Your task to perform on an android device: open app "DuckDuckGo Privacy Browser" (install if not already installed) and enter user name: "cleaving@outlook.com" and password: "freighters" Image 0: 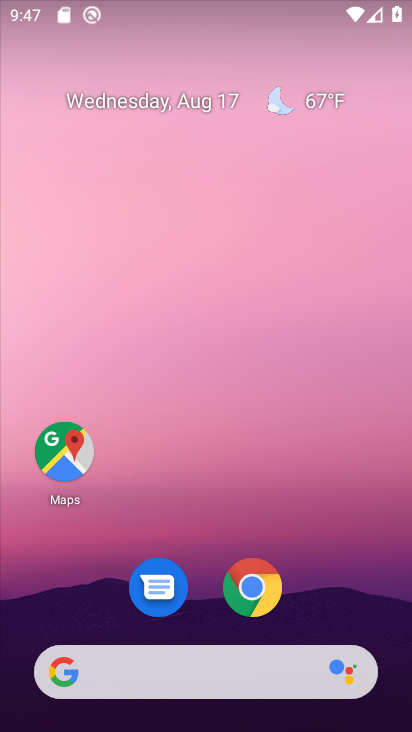
Step 0: drag from (214, 616) to (168, 72)
Your task to perform on an android device: open app "DuckDuckGo Privacy Browser" (install if not already installed) and enter user name: "cleaving@outlook.com" and password: "freighters" Image 1: 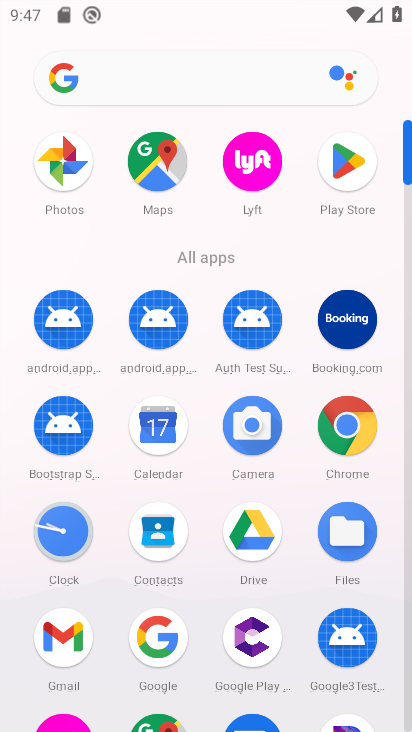
Step 1: click (343, 156)
Your task to perform on an android device: open app "DuckDuckGo Privacy Browser" (install if not already installed) and enter user name: "cleaving@outlook.com" and password: "freighters" Image 2: 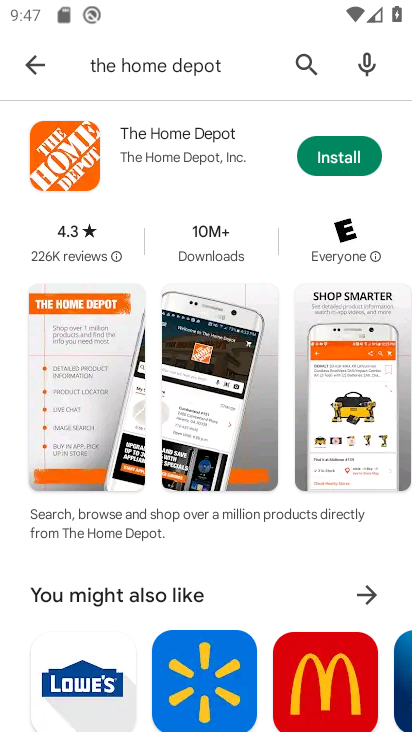
Step 2: click (29, 63)
Your task to perform on an android device: open app "DuckDuckGo Privacy Browser" (install if not already installed) and enter user name: "cleaving@outlook.com" and password: "freighters" Image 3: 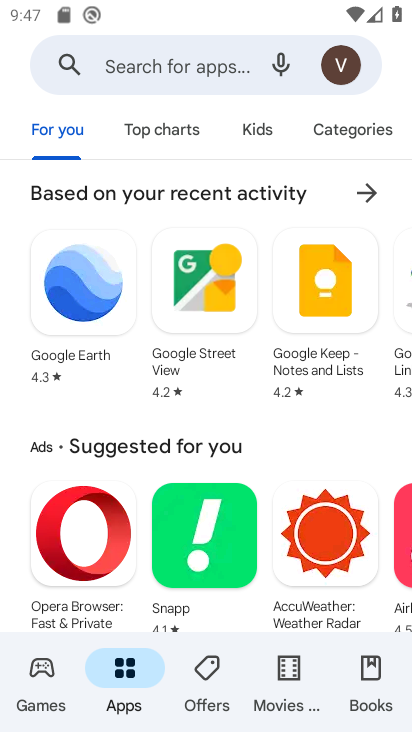
Step 3: click (149, 61)
Your task to perform on an android device: open app "DuckDuckGo Privacy Browser" (install if not already installed) and enter user name: "cleaving@outlook.com" and password: "freighters" Image 4: 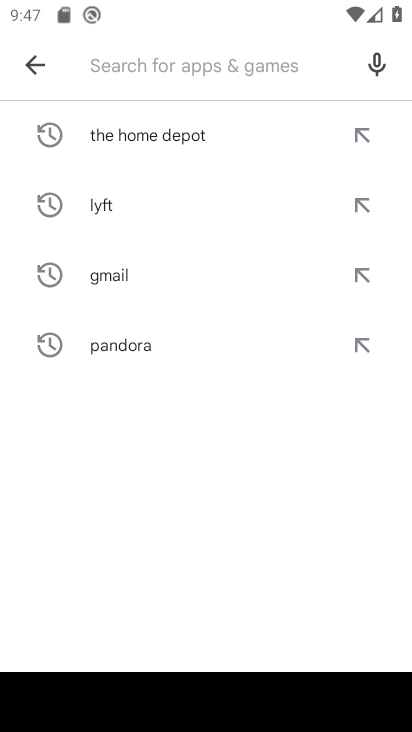
Step 4: type "DuckDuckGo Privacy Browser"
Your task to perform on an android device: open app "DuckDuckGo Privacy Browser" (install if not already installed) and enter user name: "cleaving@outlook.com" and password: "freighters" Image 5: 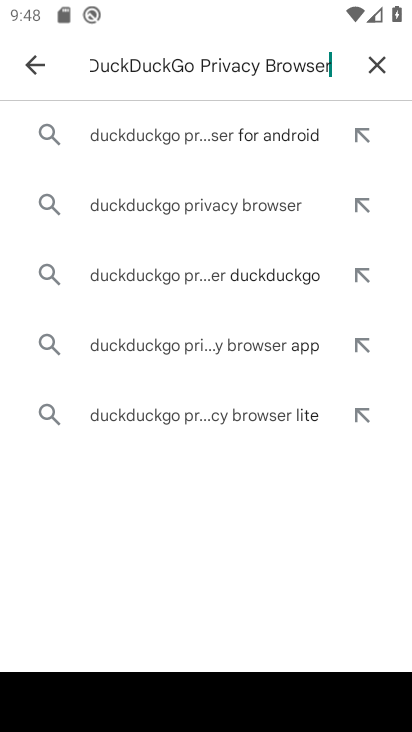
Step 5: click (214, 122)
Your task to perform on an android device: open app "DuckDuckGo Privacy Browser" (install if not already installed) and enter user name: "cleaving@outlook.com" and password: "freighters" Image 6: 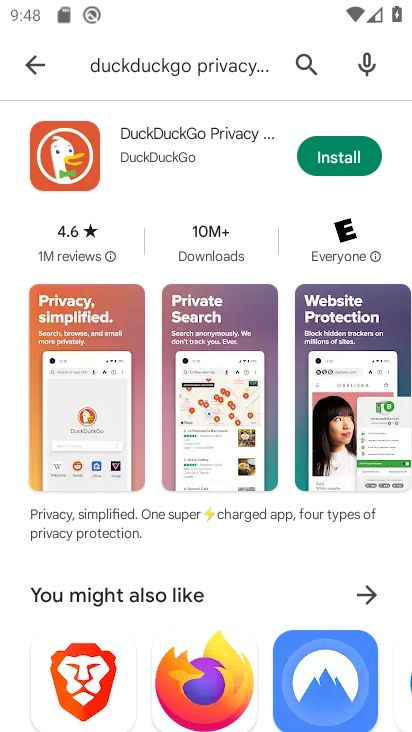
Step 6: click (337, 154)
Your task to perform on an android device: open app "DuckDuckGo Privacy Browser" (install if not already installed) and enter user name: "cleaving@outlook.com" and password: "freighters" Image 7: 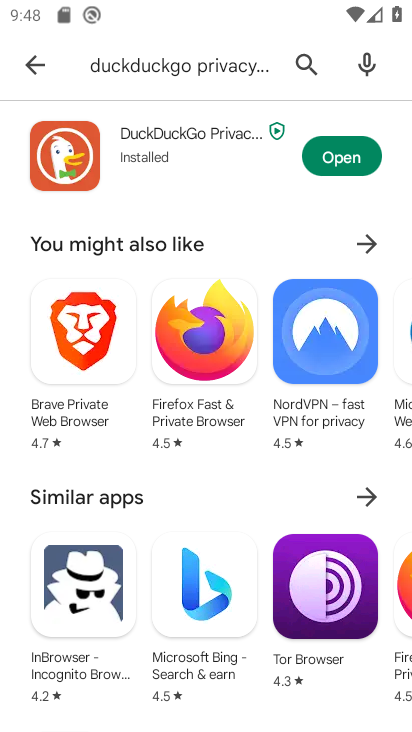
Step 7: click (330, 160)
Your task to perform on an android device: open app "DuckDuckGo Privacy Browser" (install if not already installed) and enter user name: "cleaving@outlook.com" and password: "freighters" Image 8: 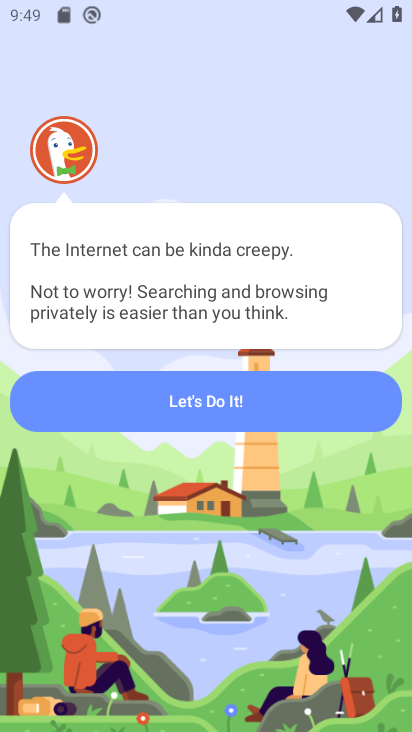
Step 8: task complete